Your task to perform on an android device: Check out the new nike air max 2020. Image 0: 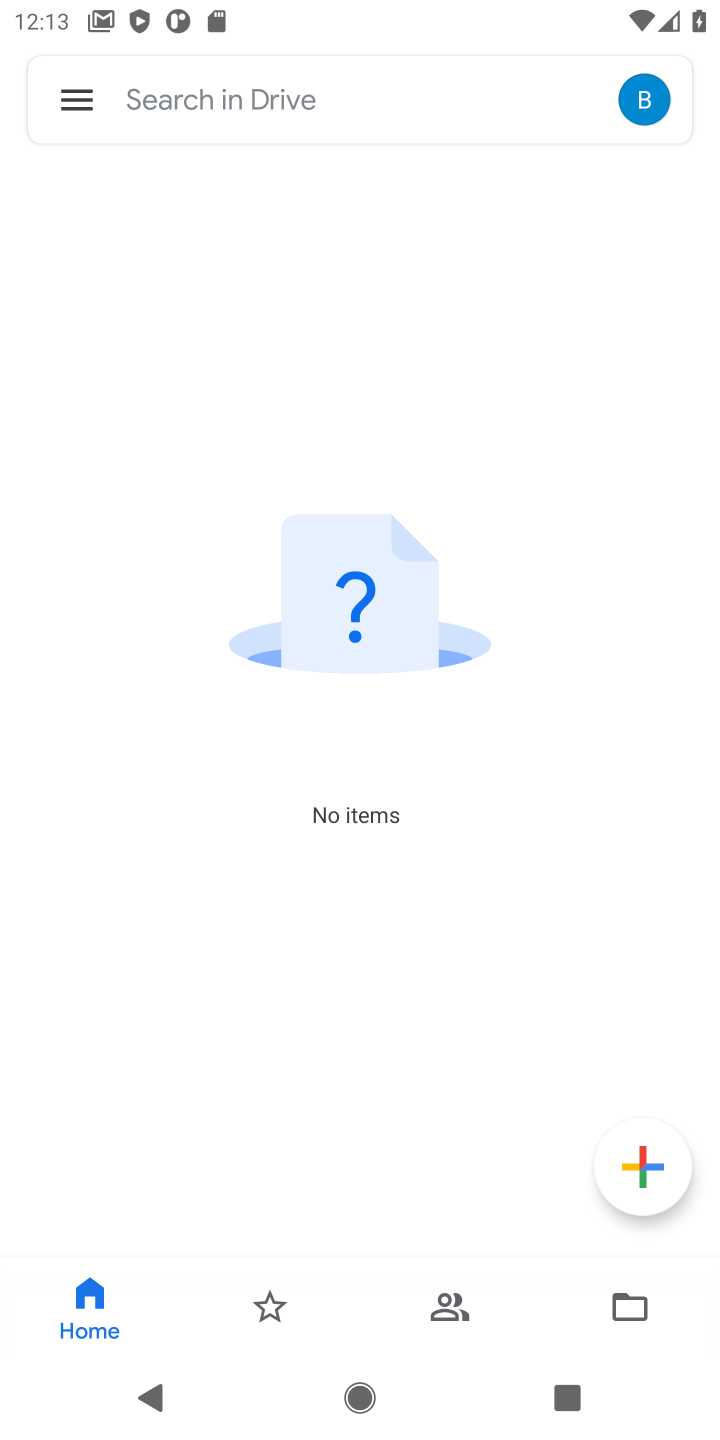
Step 0: press home button
Your task to perform on an android device: Check out the new nike air max 2020. Image 1: 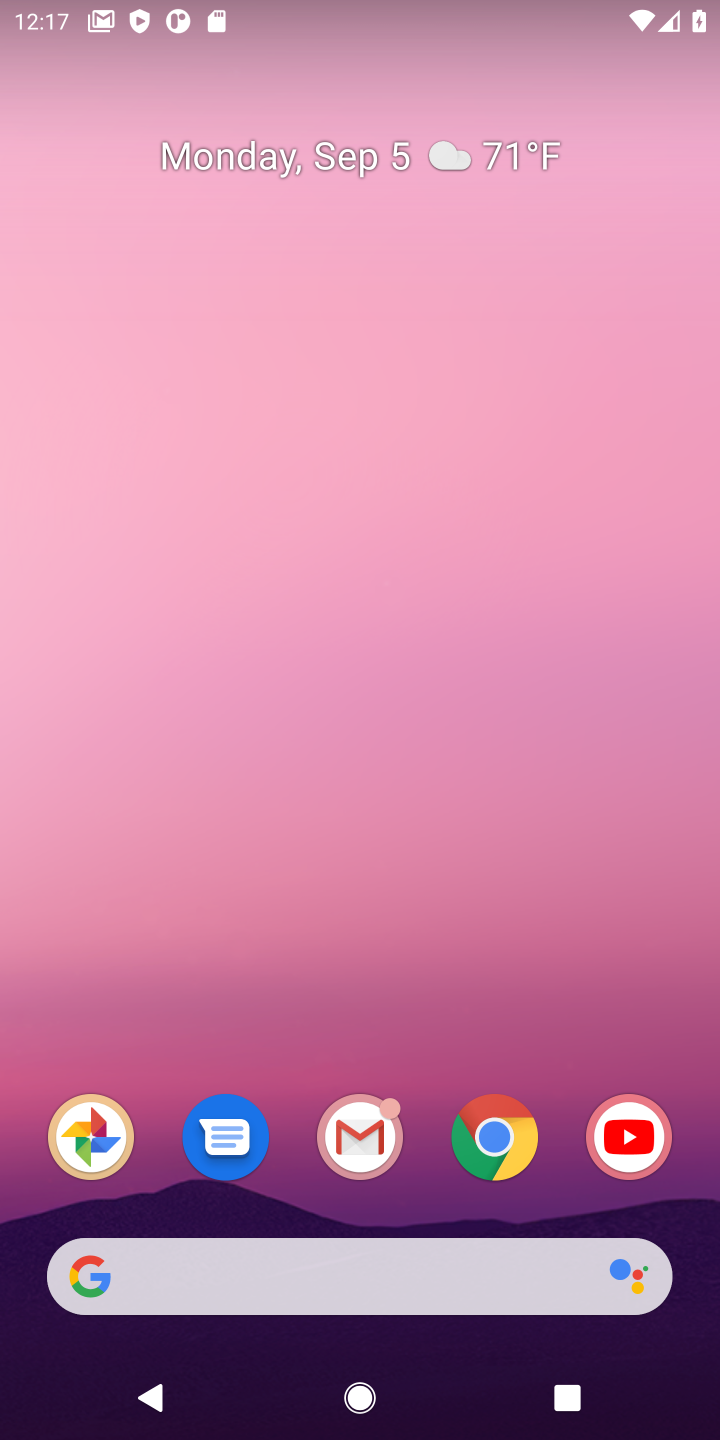
Step 1: task complete